Your task to perform on an android device: refresh tabs in the chrome app Image 0: 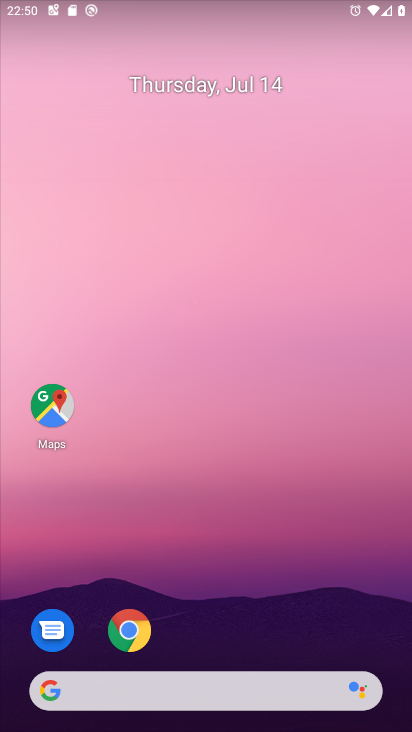
Step 0: drag from (225, 633) to (290, 16)
Your task to perform on an android device: refresh tabs in the chrome app Image 1: 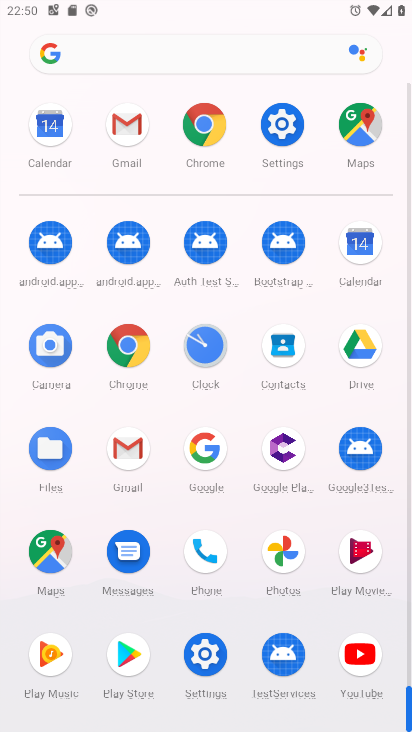
Step 1: click (122, 337)
Your task to perform on an android device: refresh tabs in the chrome app Image 2: 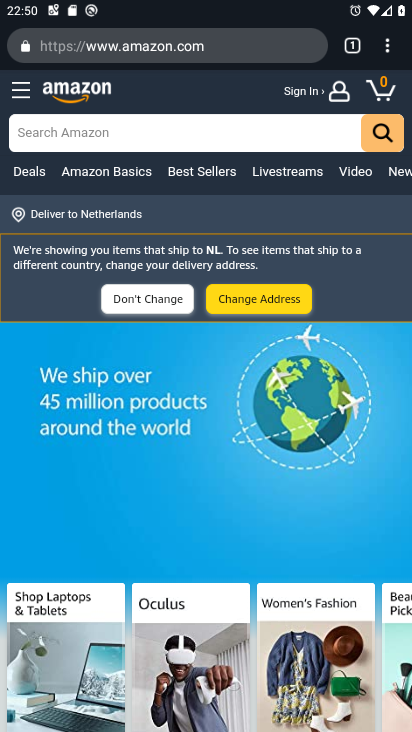
Step 2: click (387, 40)
Your task to perform on an android device: refresh tabs in the chrome app Image 3: 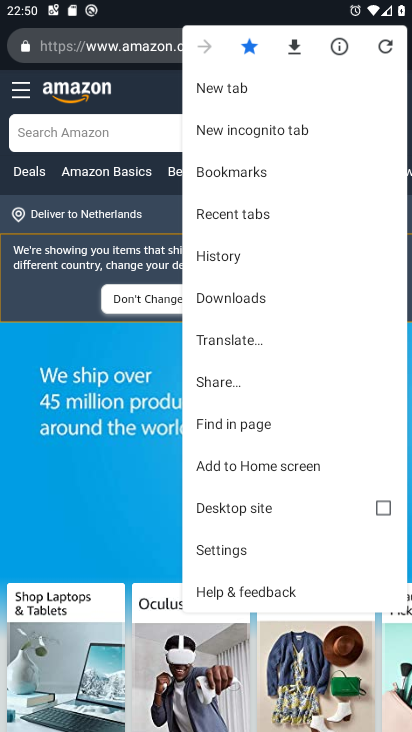
Step 3: click (386, 40)
Your task to perform on an android device: refresh tabs in the chrome app Image 4: 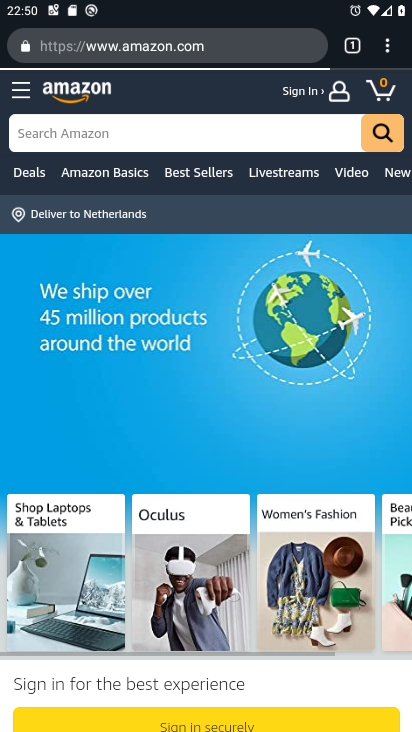
Step 4: task complete